Your task to perform on an android device: Go to privacy settings Image 0: 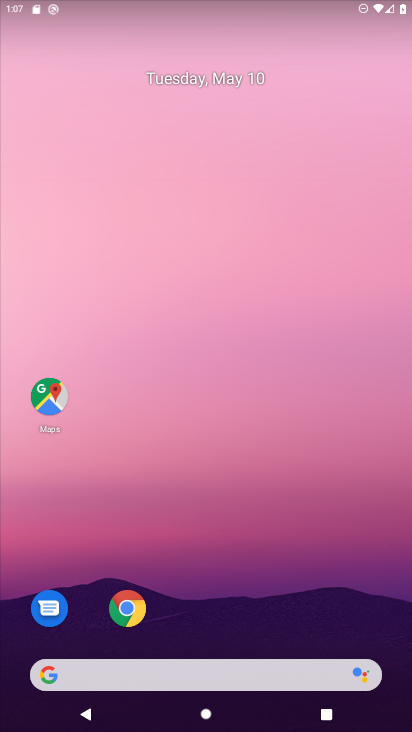
Step 0: drag from (284, 612) to (292, 246)
Your task to perform on an android device: Go to privacy settings Image 1: 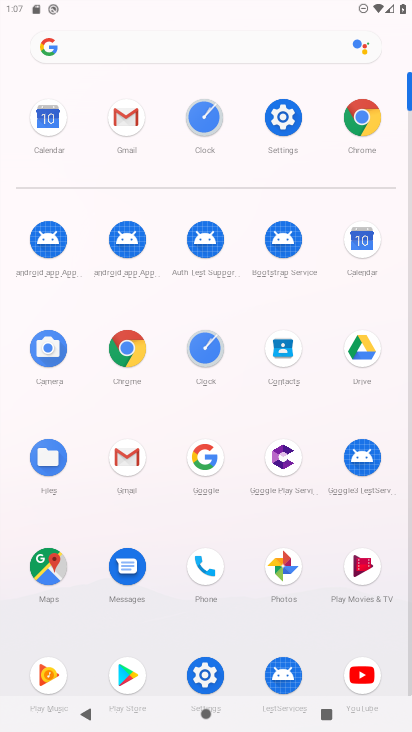
Step 1: click (265, 111)
Your task to perform on an android device: Go to privacy settings Image 2: 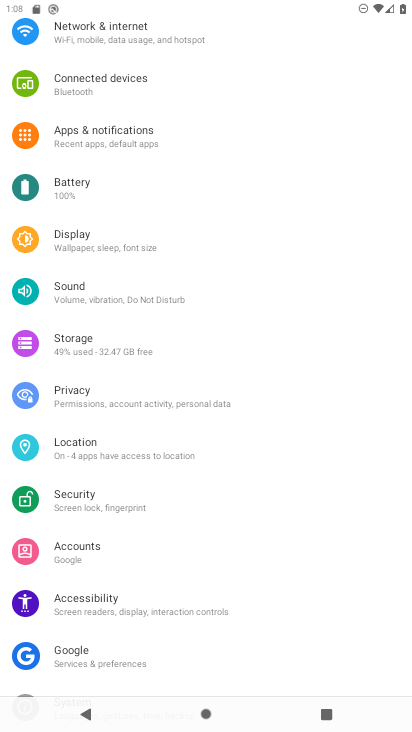
Step 2: click (86, 389)
Your task to perform on an android device: Go to privacy settings Image 3: 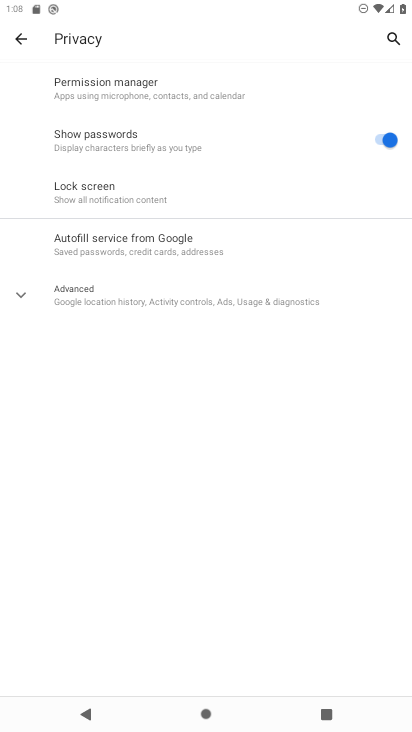
Step 3: task complete